Your task to perform on an android device: What's the latest news in tech? Image 0: 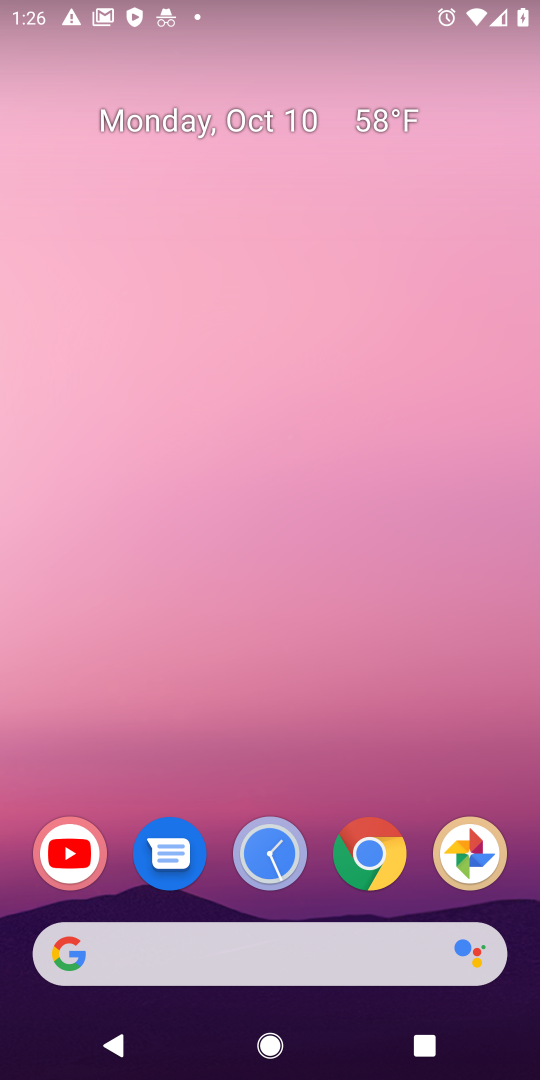
Step 0: click (380, 855)
Your task to perform on an android device: What's the latest news in tech? Image 1: 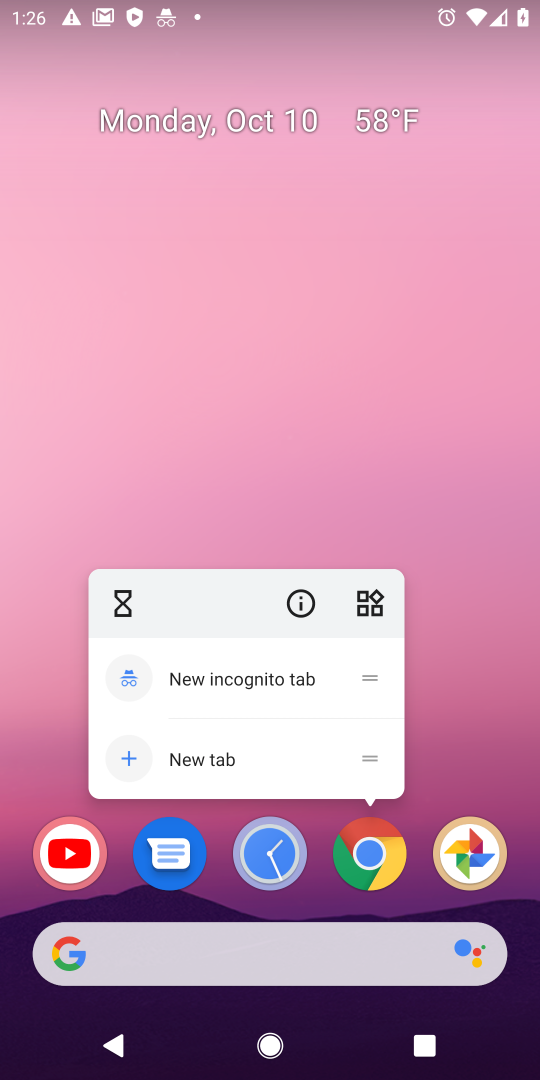
Step 1: click (380, 855)
Your task to perform on an android device: What's the latest news in tech? Image 2: 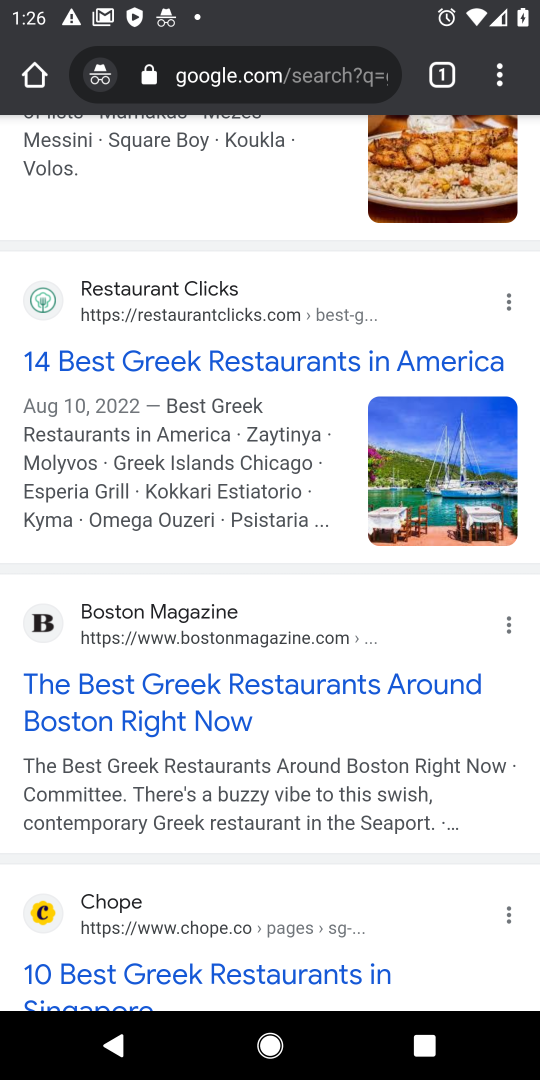
Step 2: click (280, 84)
Your task to perform on an android device: What's the latest news in tech? Image 3: 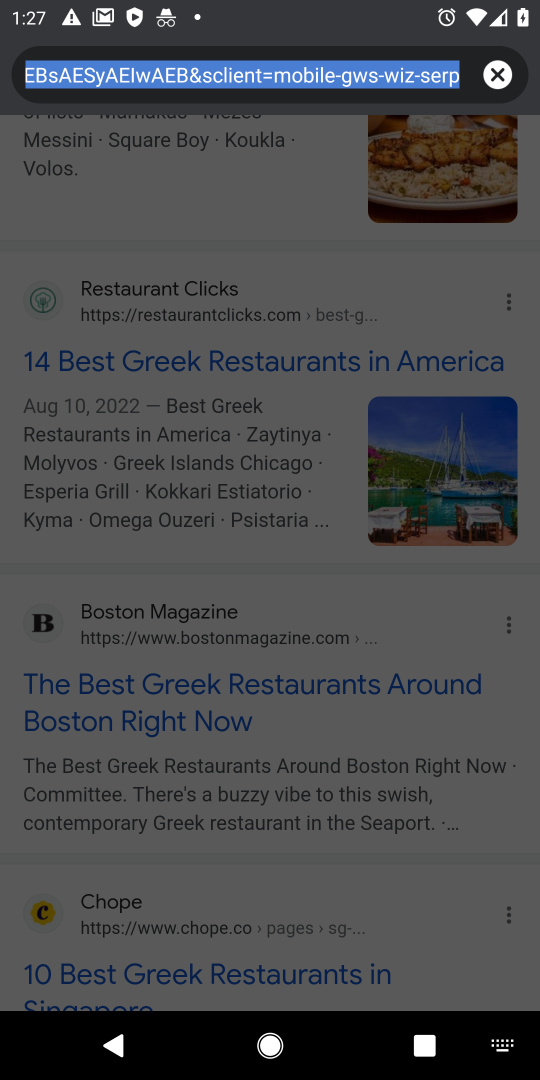
Step 3: type "latest news in tech?"
Your task to perform on an android device: What's the latest news in tech? Image 4: 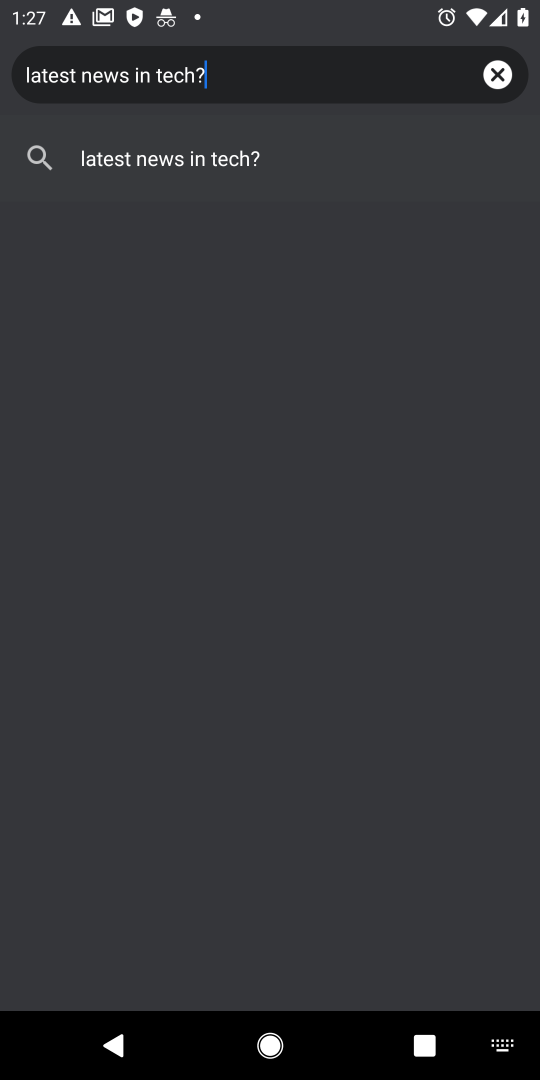
Step 4: press enter
Your task to perform on an android device: What's the latest news in tech? Image 5: 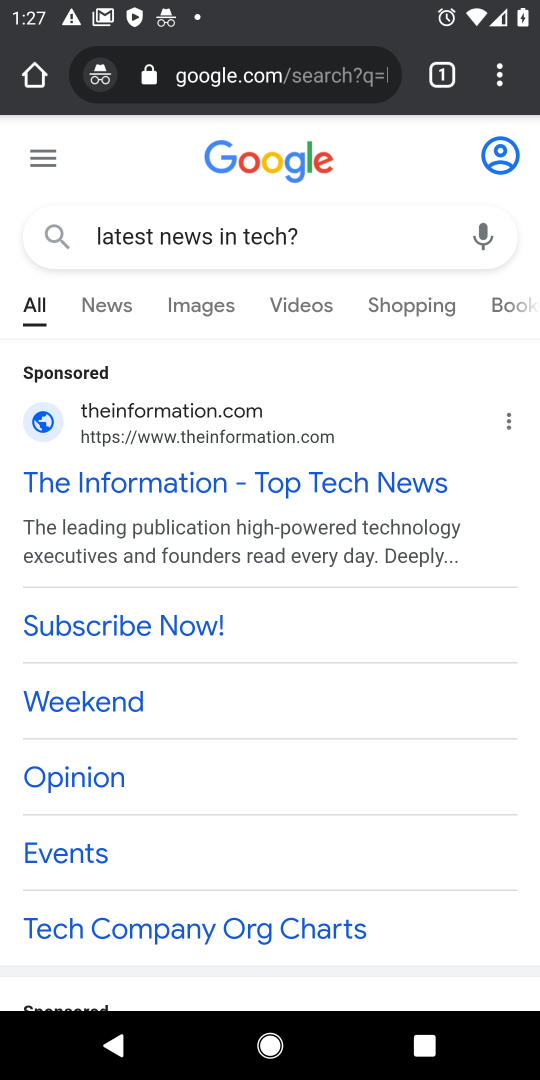
Step 5: click (87, 306)
Your task to perform on an android device: What's the latest news in tech? Image 6: 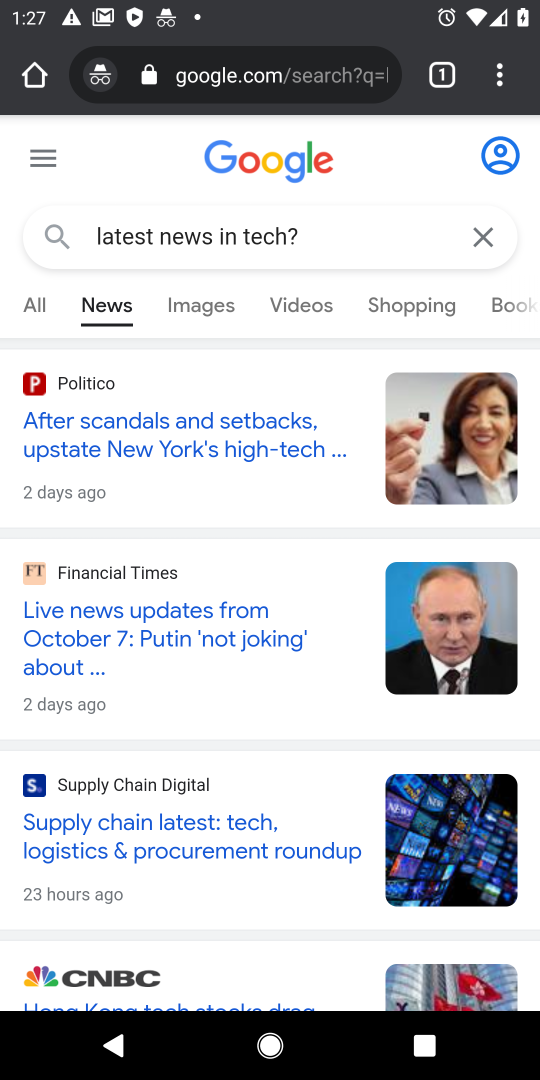
Step 6: task complete